Your task to perform on an android device: Show me popular games on the Play Store Image 0: 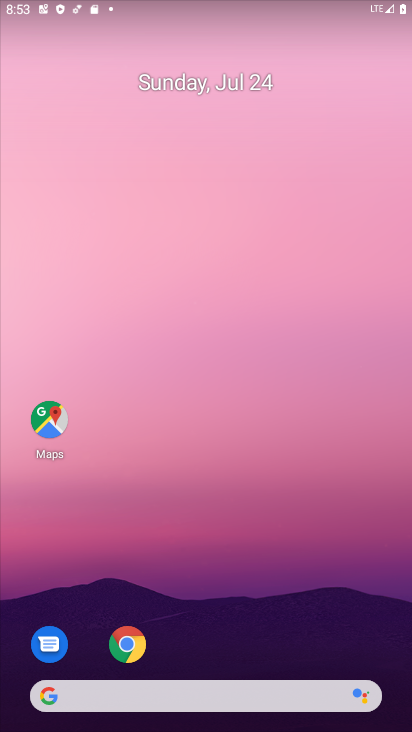
Step 0: drag from (0, 727) to (224, 61)
Your task to perform on an android device: Show me popular games on the Play Store Image 1: 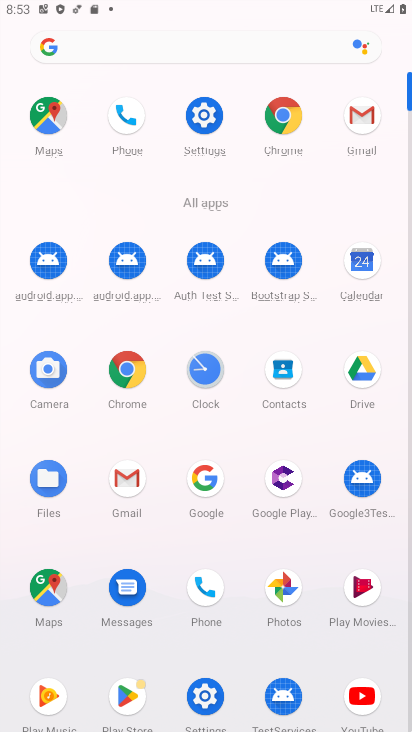
Step 1: click (140, 687)
Your task to perform on an android device: Show me popular games on the Play Store Image 2: 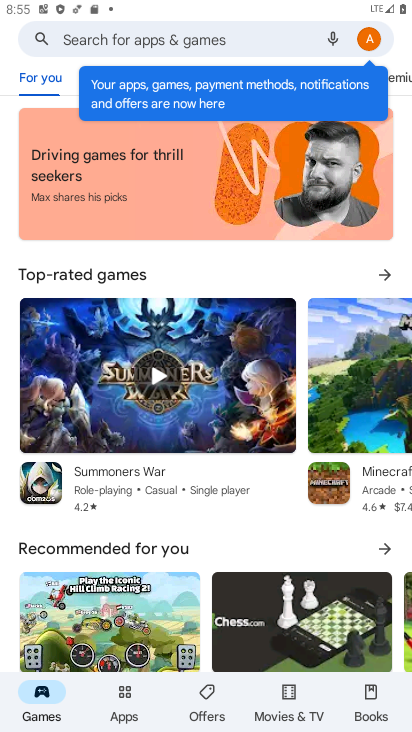
Step 2: task complete